Your task to perform on an android device: turn on data saver in the chrome app Image 0: 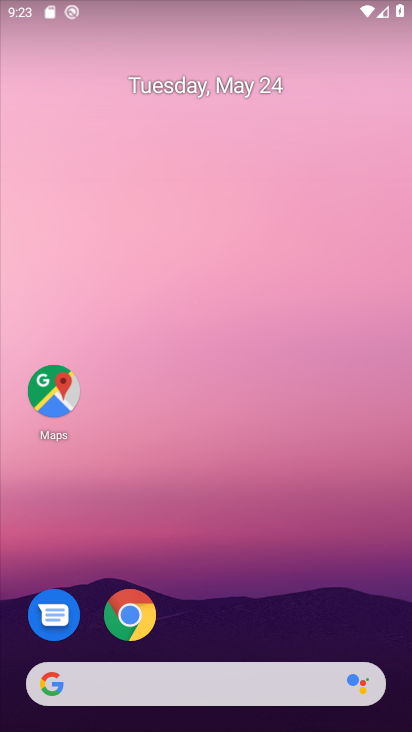
Step 0: drag from (390, 631) to (377, 286)
Your task to perform on an android device: turn on data saver in the chrome app Image 1: 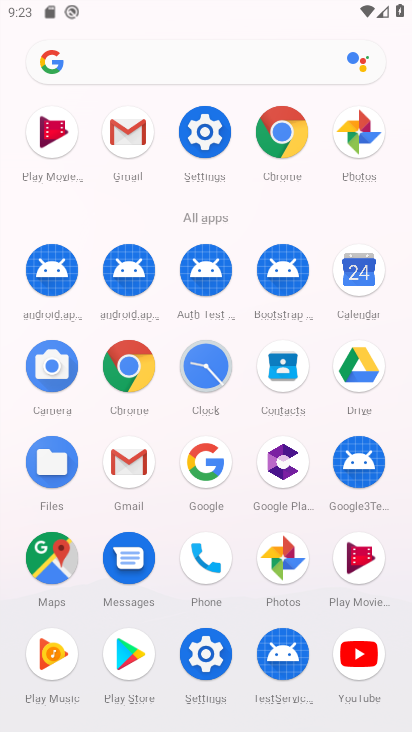
Step 1: click (129, 388)
Your task to perform on an android device: turn on data saver in the chrome app Image 2: 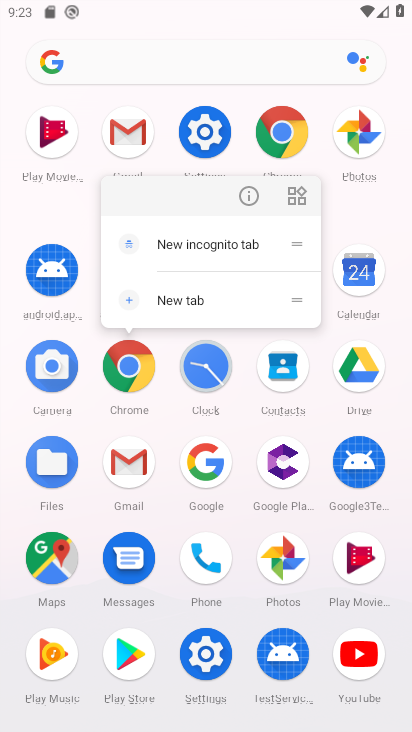
Step 2: click (129, 388)
Your task to perform on an android device: turn on data saver in the chrome app Image 3: 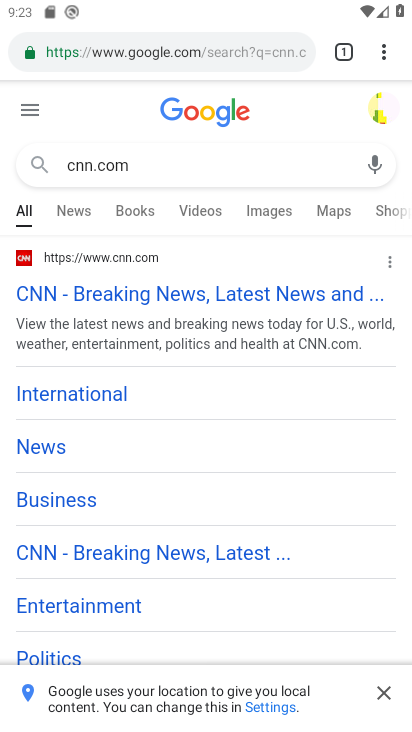
Step 3: click (384, 59)
Your task to perform on an android device: turn on data saver in the chrome app Image 4: 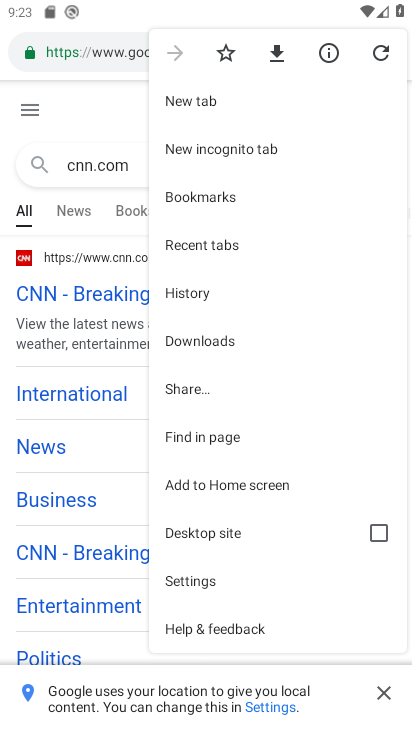
Step 4: click (225, 586)
Your task to perform on an android device: turn on data saver in the chrome app Image 5: 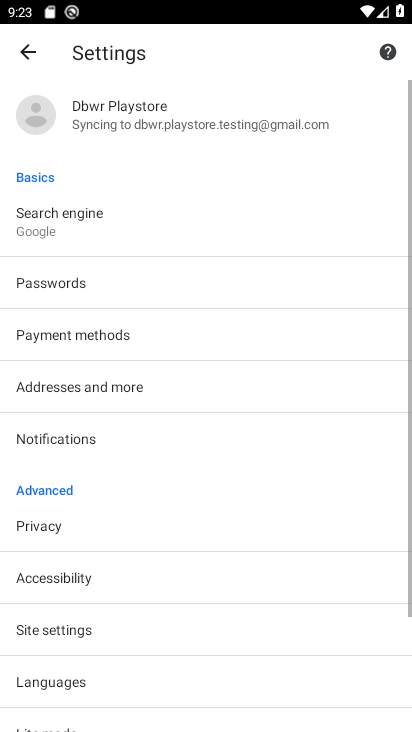
Step 5: drag from (226, 610) to (224, 506)
Your task to perform on an android device: turn on data saver in the chrome app Image 6: 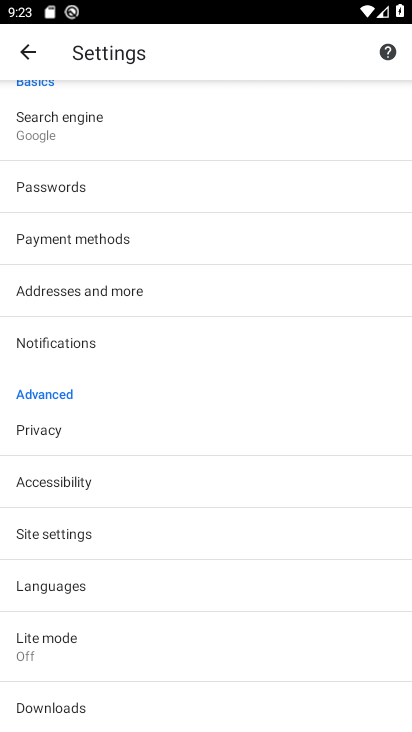
Step 6: drag from (260, 663) to (260, 559)
Your task to perform on an android device: turn on data saver in the chrome app Image 7: 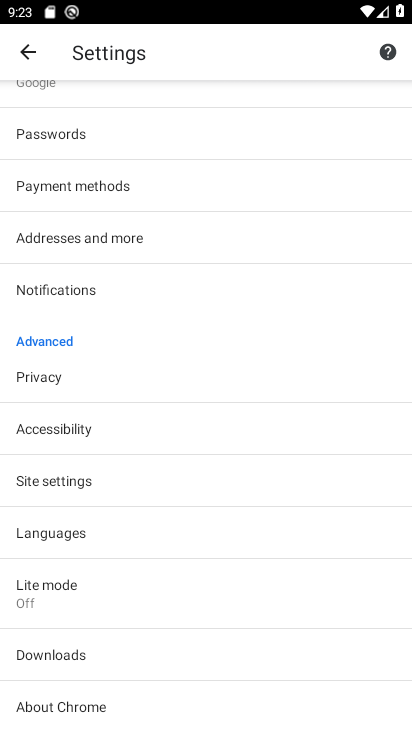
Step 7: drag from (307, 662) to (307, 551)
Your task to perform on an android device: turn on data saver in the chrome app Image 8: 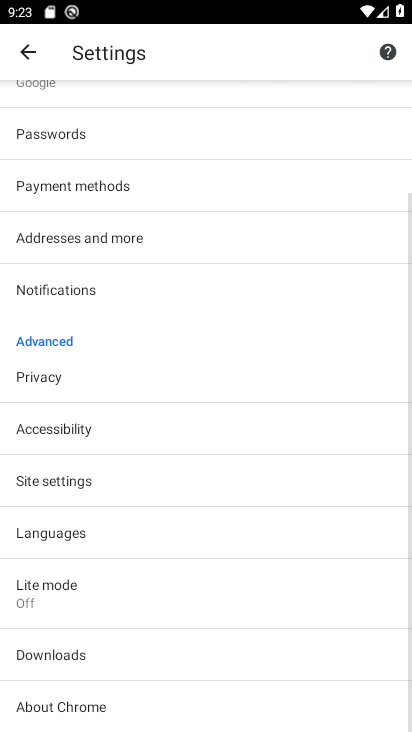
Step 8: drag from (310, 454) to (312, 491)
Your task to perform on an android device: turn on data saver in the chrome app Image 9: 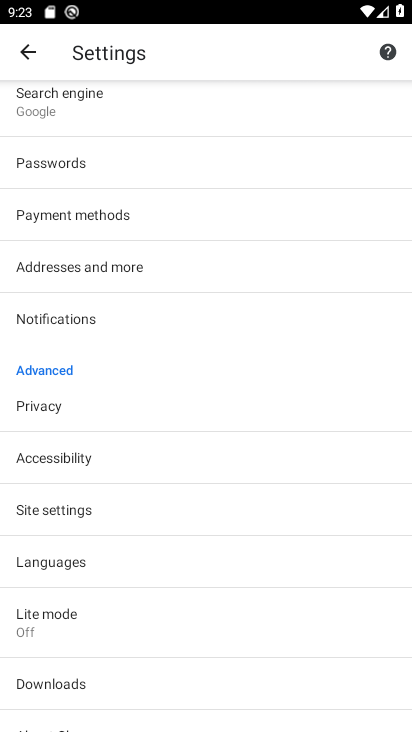
Step 9: drag from (337, 326) to (338, 455)
Your task to perform on an android device: turn on data saver in the chrome app Image 10: 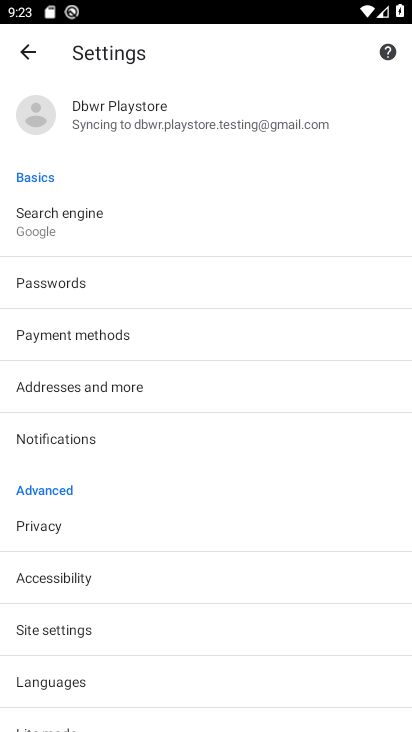
Step 10: drag from (353, 313) to (353, 446)
Your task to perform on an android device: turn on data saver in the chrome app Image 11: 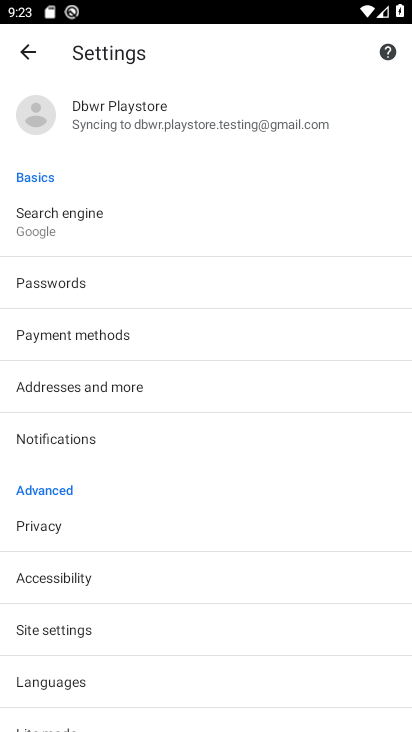
Step 11: drag from (350, 328) to (327, 481)
Your task to perform on an android device: turn on data saver in the chrome app Image 12: 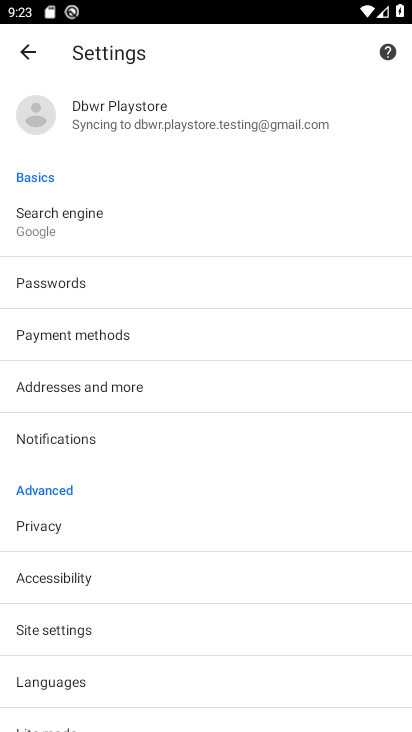
Step 12: drag from (268, 582) to (266, 476)
Your task to perform on an android device: turn on data saver in the chrome app Image 13: 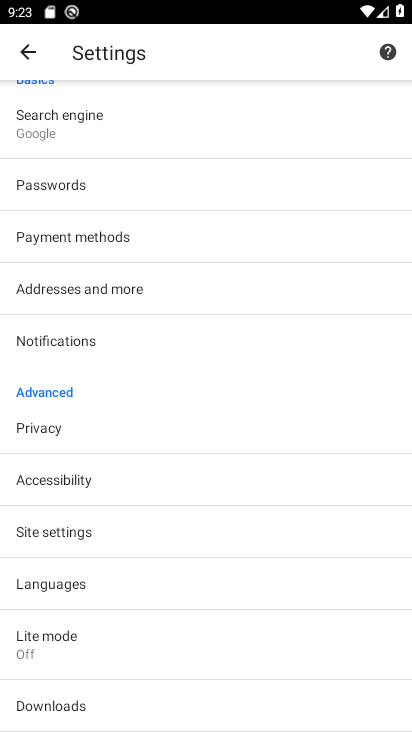
Step 13: click (261, 641)
Your task to perform on an android device: turn on data saver in the chrome app Image 14: 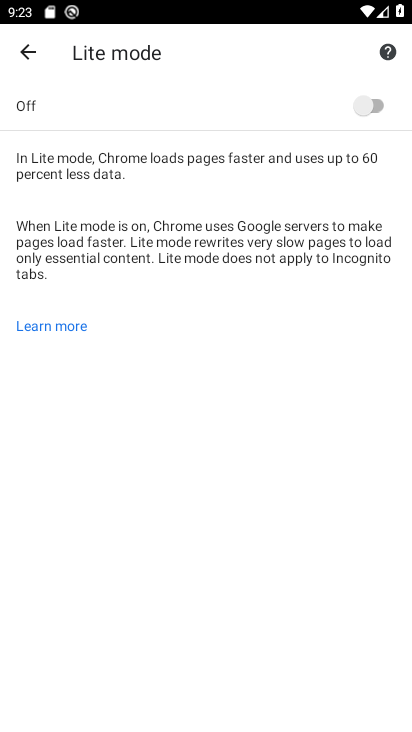
Step 14: click (358, 114)
Your task to perform on an android device: turn on data saver in the chrome app Image 15: 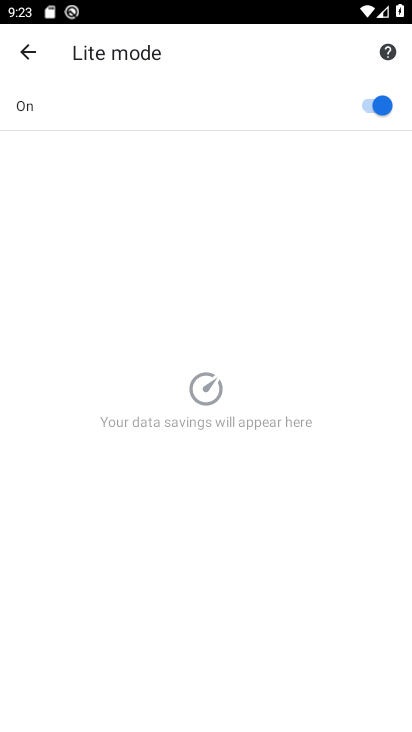
Step 15: task complete